Your task to perform on an android device: check google app version Image 0: 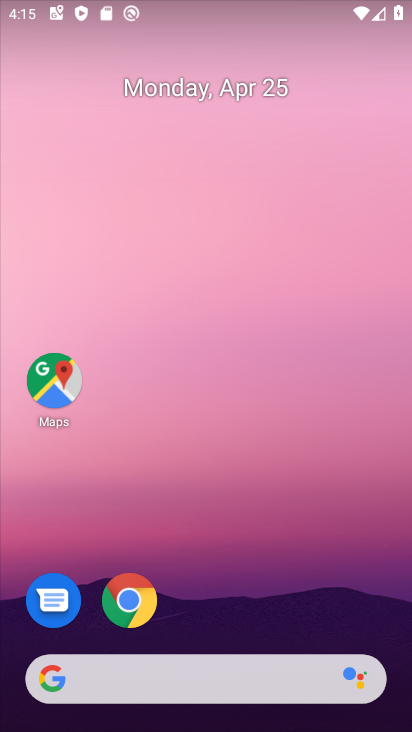
Step 0: drag from (274, 578) to (202, 9)
Your task to perform on an android device: check google app version Image 1: 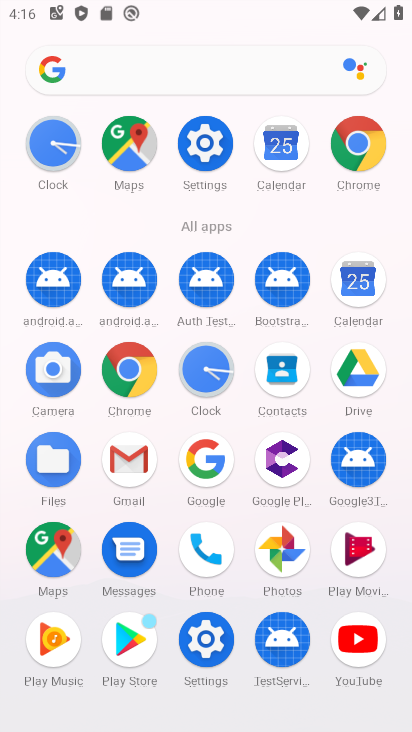
Step 1: click (205, 456)
Your task to perform on an android device: check google app version Image 2: 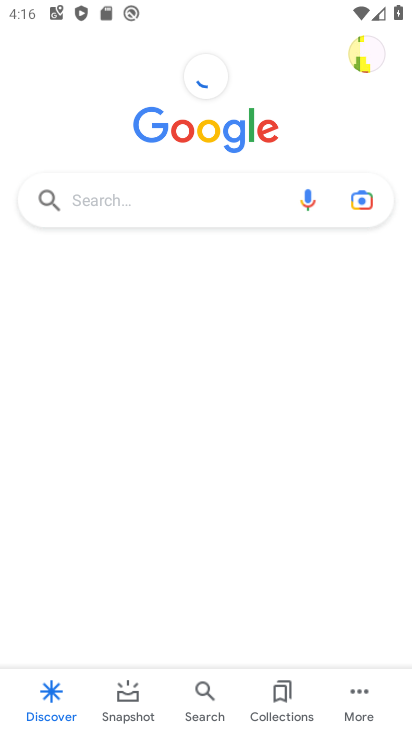
Step 2: click (348, 695)
Your task to perform on an android device: check google app version Image 3: 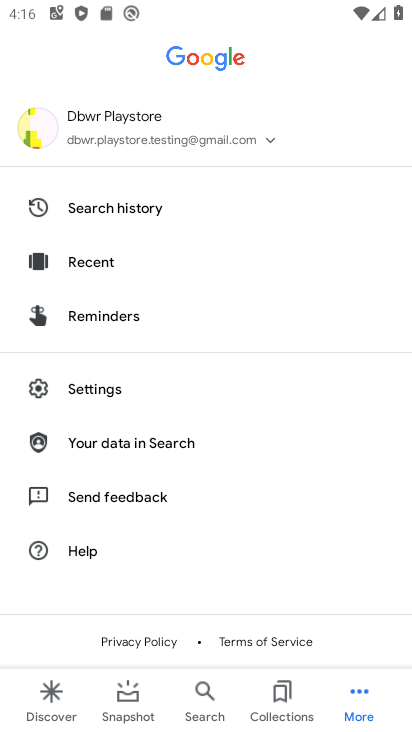
Step 3: click (98, 378)
Your task to perform on an android device: check google app version Image 4: 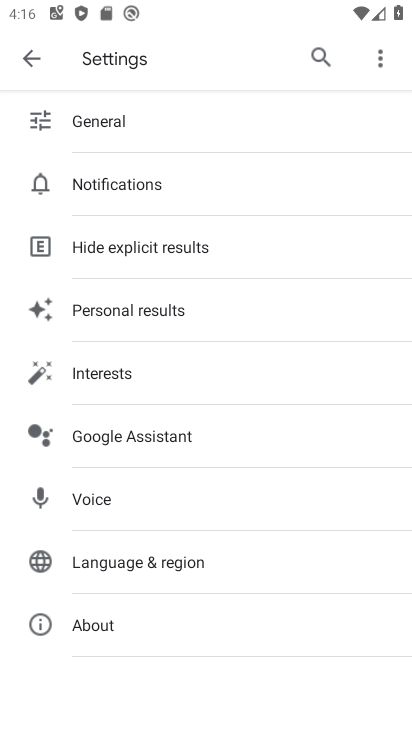
Step 4: click (155, 608)
Your task to perform on an android device: check google app version Image 5: 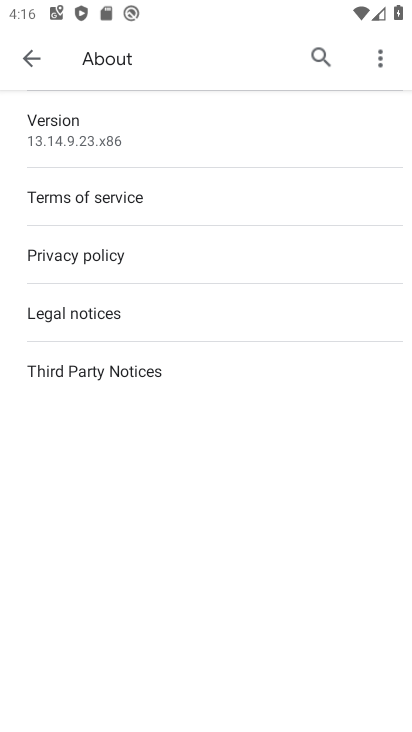
Step 5: task complete